Your task to perform on an android device: install app "Grab" Image 0: 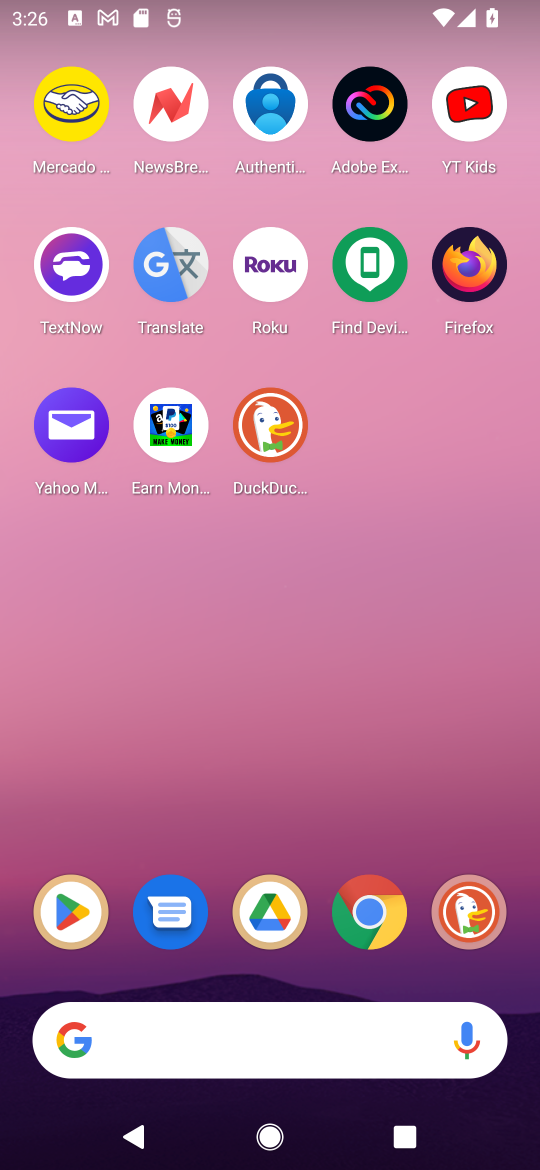
Step 0: click (55, 904)
Your task to perform on an android device: install app "Grab" Image 1: 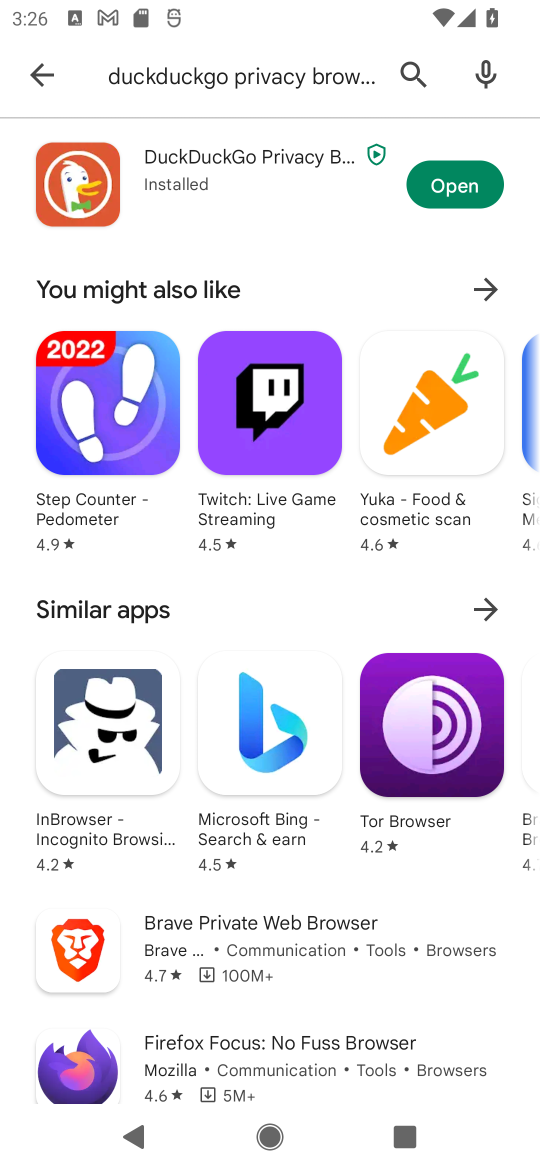
Step 1: click (331, 81)
Your task to perform on an android device: install app "Grab" Image 2: 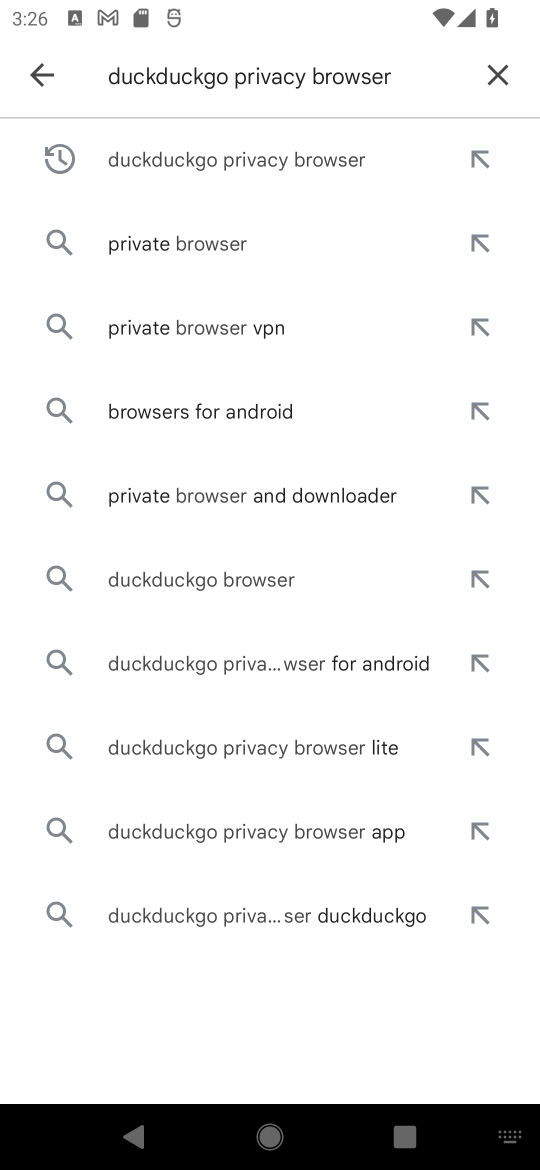
Step 2: click (507, 79)
Your task to perform on an android device: install app "Grab" Image 3: 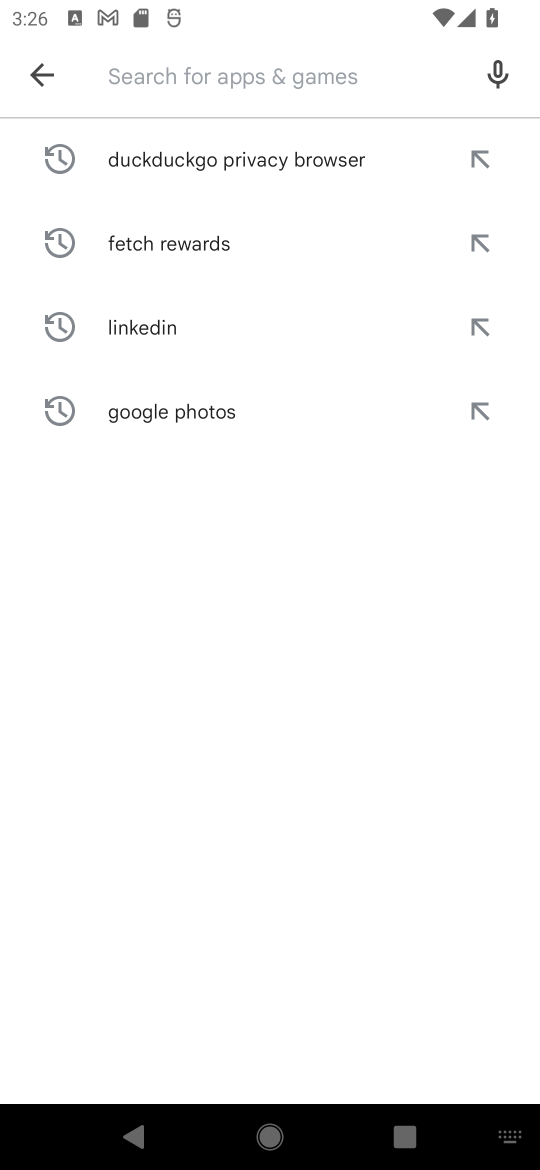
Step 3: type "Grab"
Your task to perform on an android device: install app "Grab" Image 4: 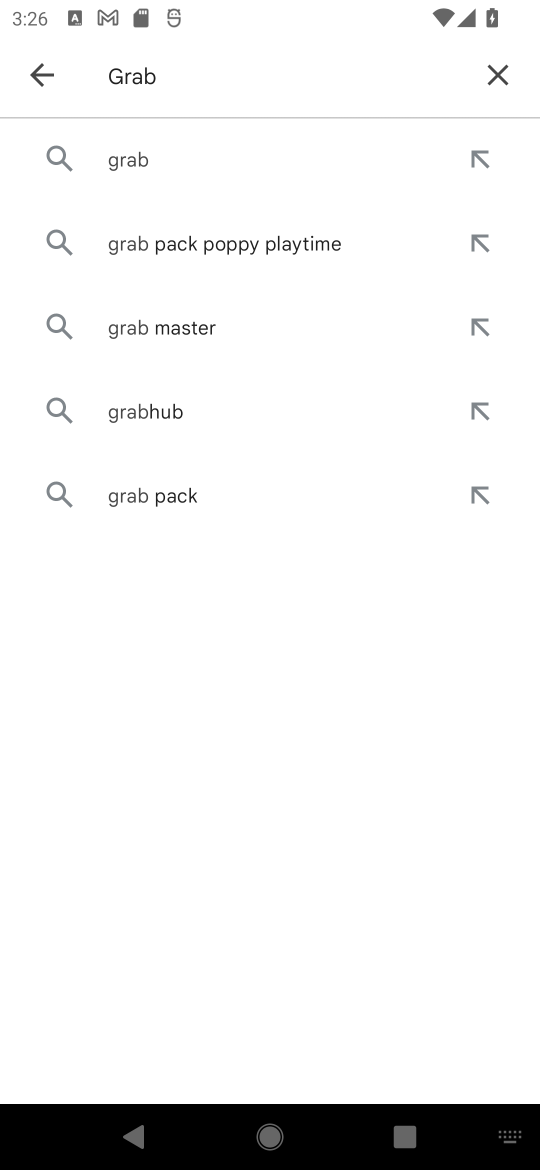
Step 4: click (104, 166)
Your task to perform on an android device: install app "Grab" Image 5: 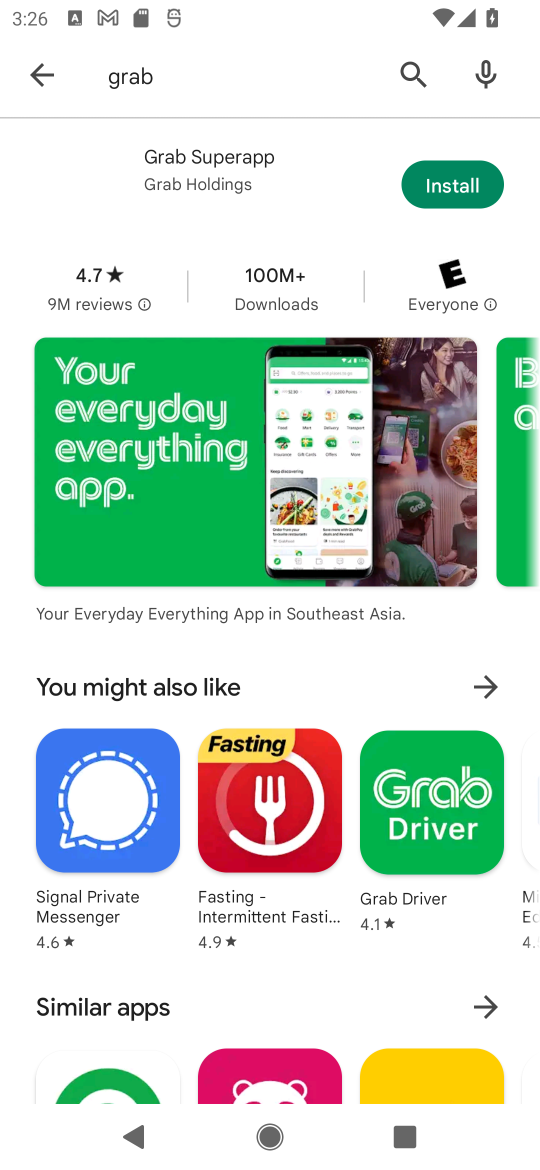
Step 5: click (426, 198)
Your task to perform on an android device: install app "Grab" Image 6: 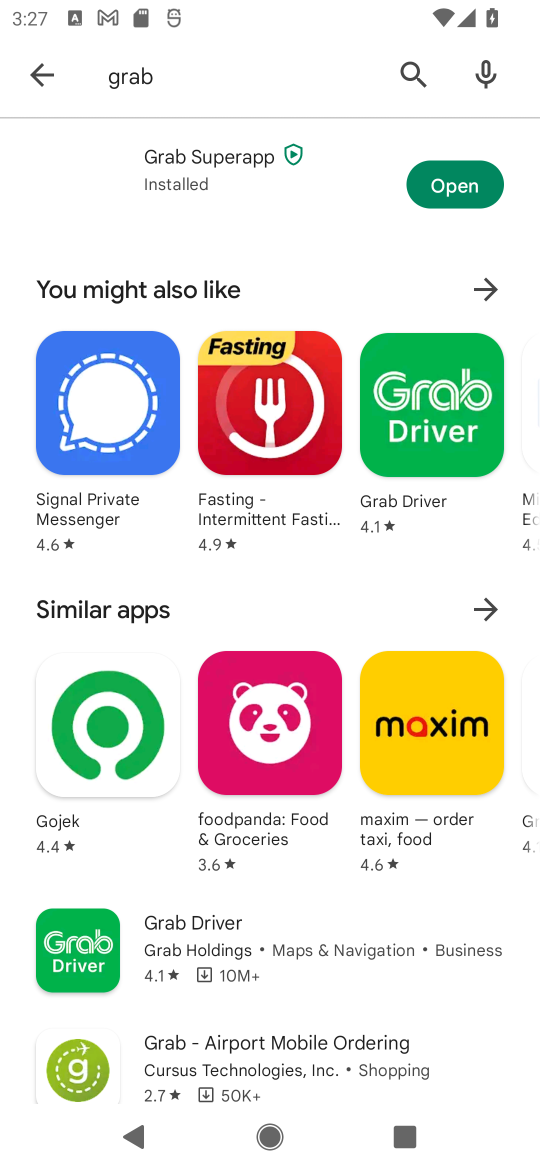
Step 6: task complete